Your task to perform on an android device: Show me popular games on the Play Store Image 0: 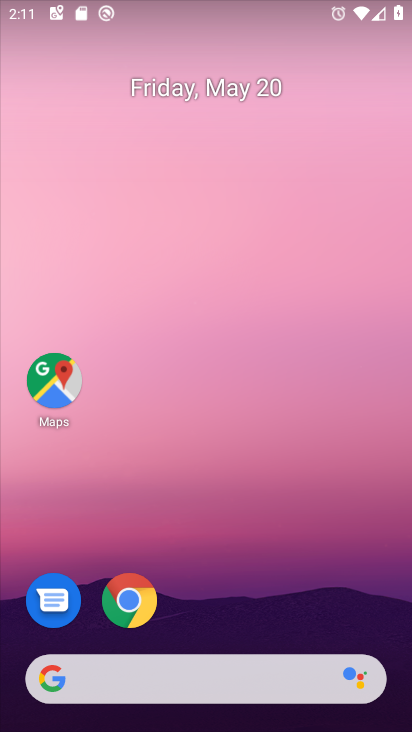
Step 0: drag from (210, 614) to (232, 13)
Your task to perform on an android device: Show me popular games on the Play Store Image 1: 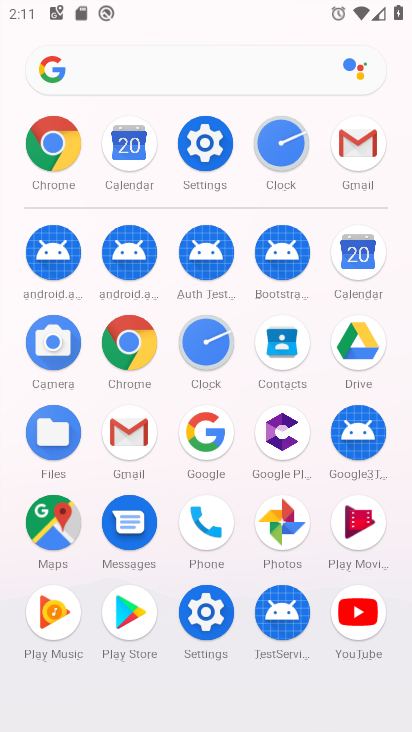
Step 1: click (117, 599)
Your task to perform on an android device: Show me popular games on the Play Store Image 2: 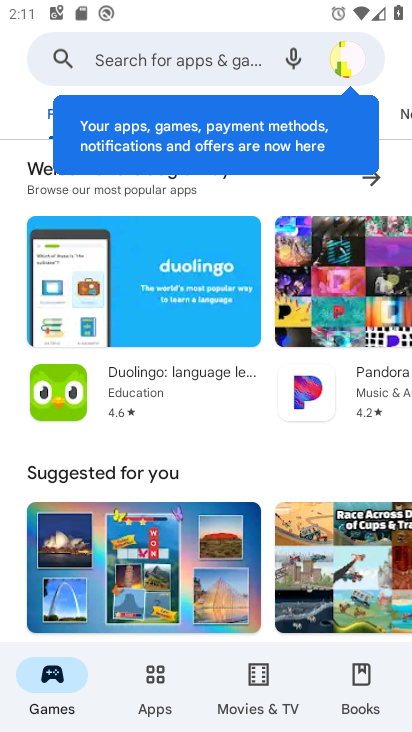
Step 2: drag from (28, 118) to (0, 158)
Your task to perform on an android device: Show me popular games on the Play Store Image 3: 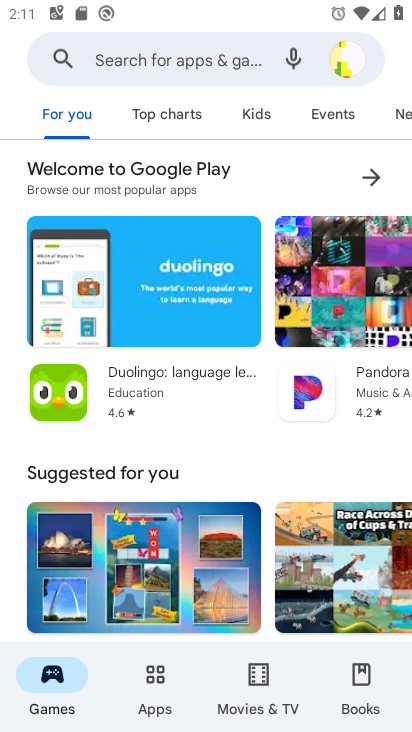
Step 3: click (187, 119)
Your task to perform on an android device: Show me popular games on the Play Store Image 4: 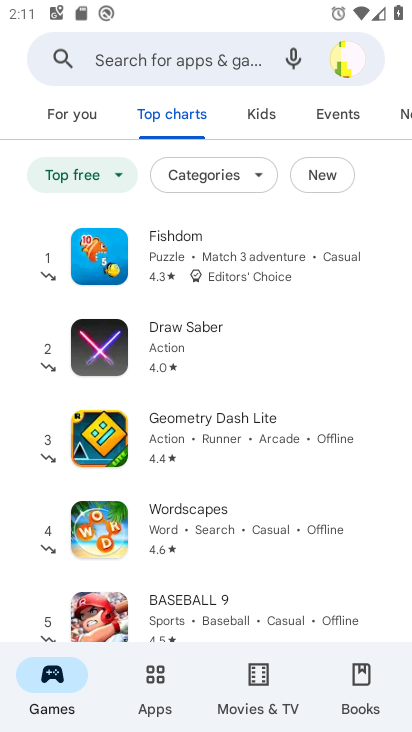
Step 4: task complete